Your task to perform on an android device: Do I have any events today? Image 0: 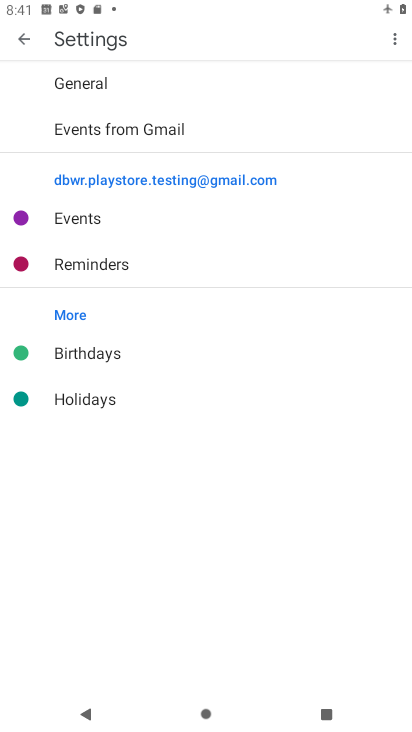
Step 0: press home button
Your task to perform on an android device: Do I have any events today? Image 1: 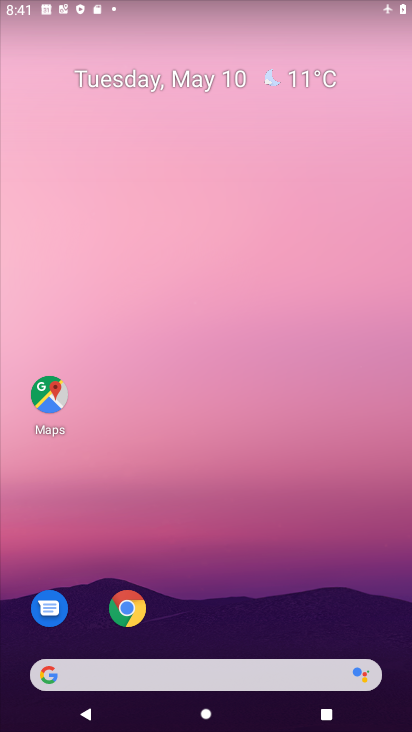
Step 1: drag from (191, 668) to (273, 194)
Your task to perform on an android device: Do I have any events today? Image 2: 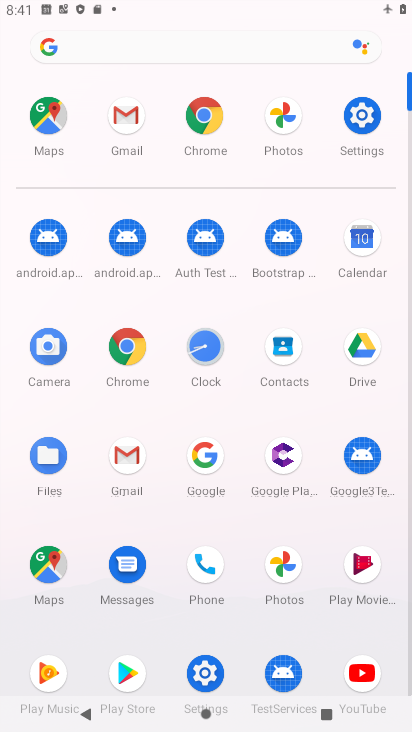
Step 2: click (370, 242)
Your task to perform on an android device: Do I have any events today? Image 3: 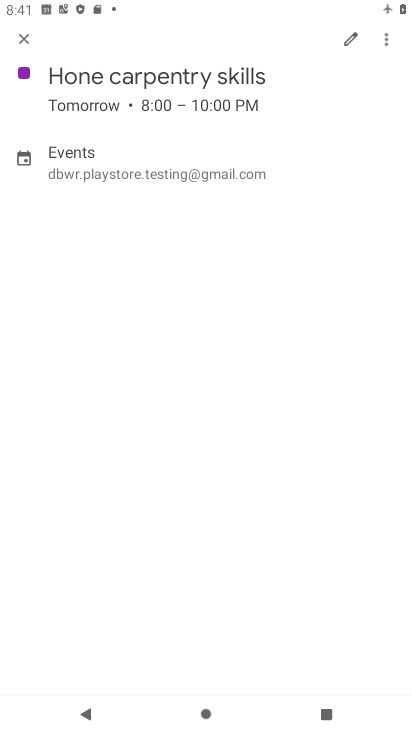
Step 3: click (23, 38)
Your task to perform on an android device: Do I have any events today? Image 4: 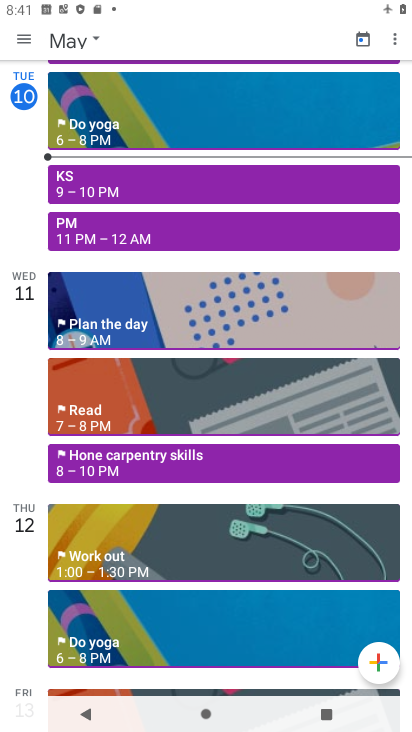
Step 4: click (70, 43)
Your task to perform on an android device: Do I have any events today? Image 5: 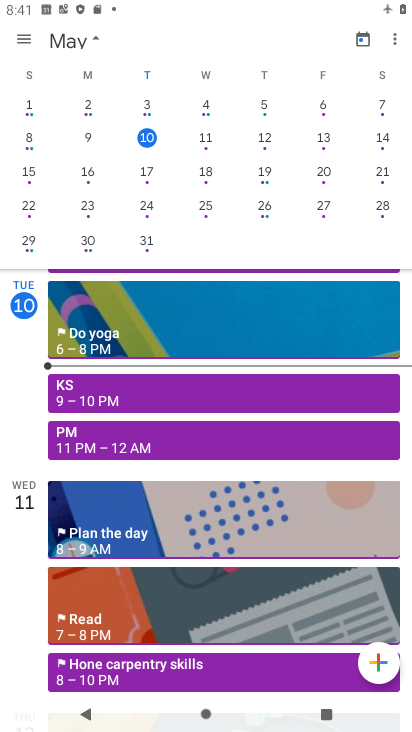
Step 5: click (149, 139)
Your task to perform on an android device: Do I have any events today? Image 6: 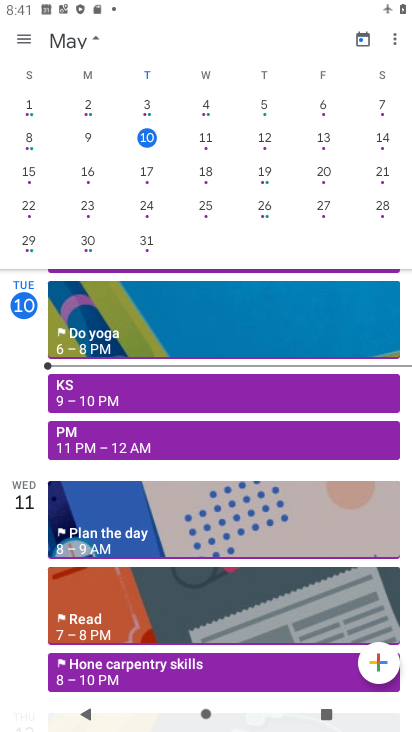
Step 6: click (28, 35)
Your task to perform on an android device: Do I have any events today? Image 7: 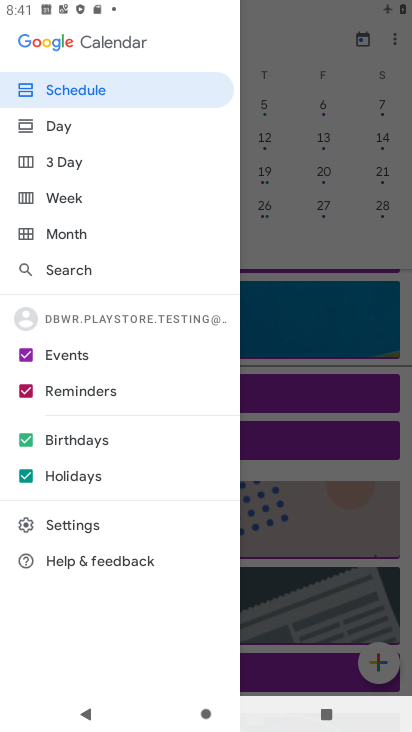
Step 7: click (53, 126)
Your task to perform on an android device: Do I have any events today? Image 8: 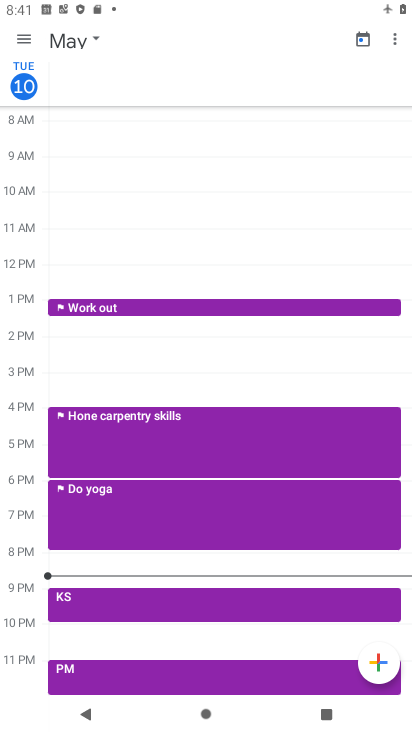
Step 8: click (21, 40)
Your task to perform on an android device: Do I have any events today? Image 9: 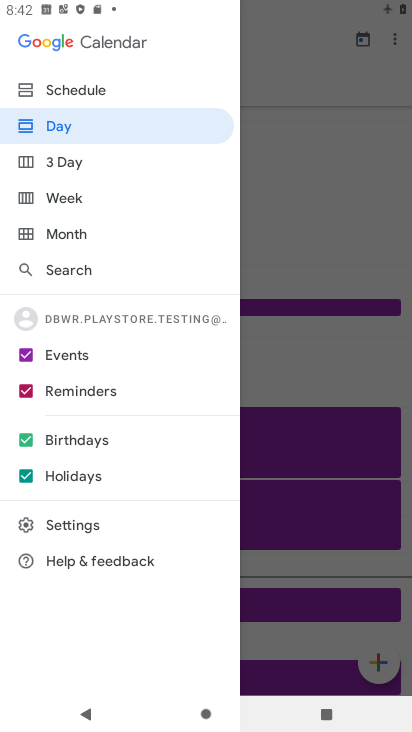
Step 9: click (75, 91)
Your task to perform on an android device: Do I have any events today? Image 10: 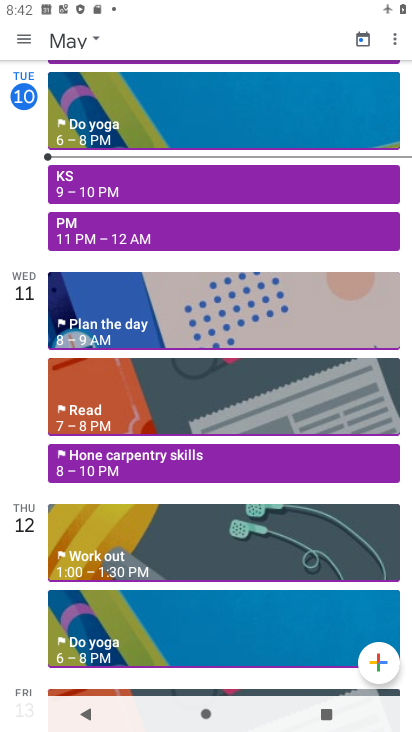
Step 10: click (140, 185)
Your task to perform on an android device: Do I have any events today? Image 11: 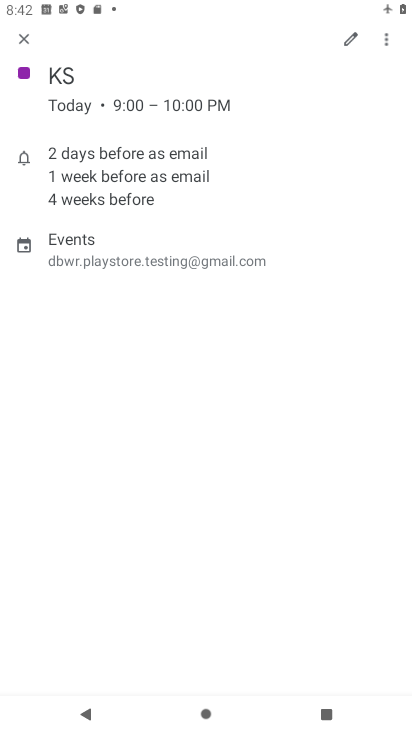
Step 11: task complete